Your task to perform on an android device: Open display settings Image 0: 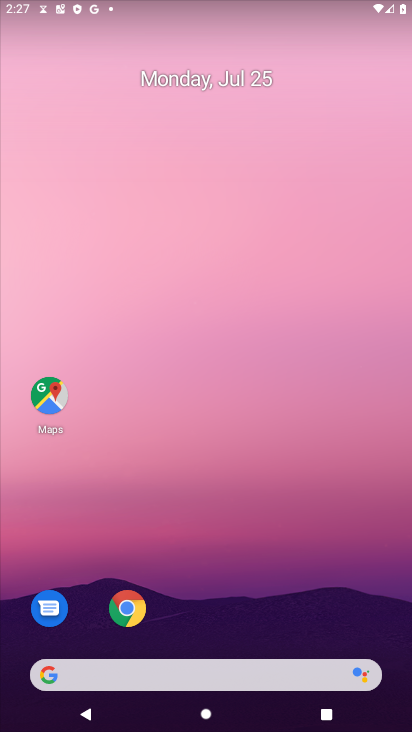
Step 0: drag from (189, 681) to (328, 237)
Your task to perform on an android device: Open display settings Image 1: 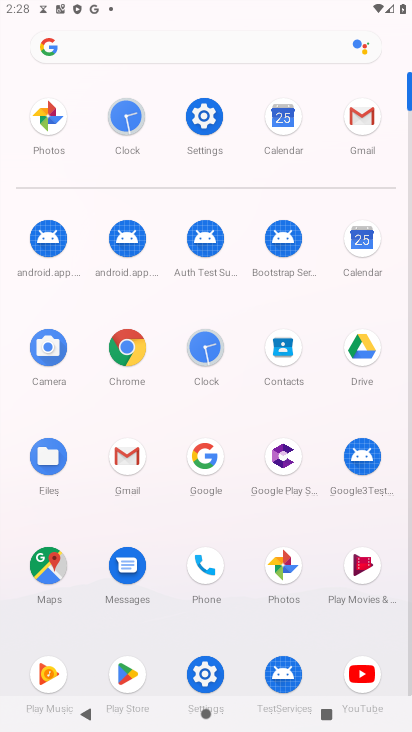
Step 1: click (204, 672)
Your task to perform on an android device: Open display settings Image 2: 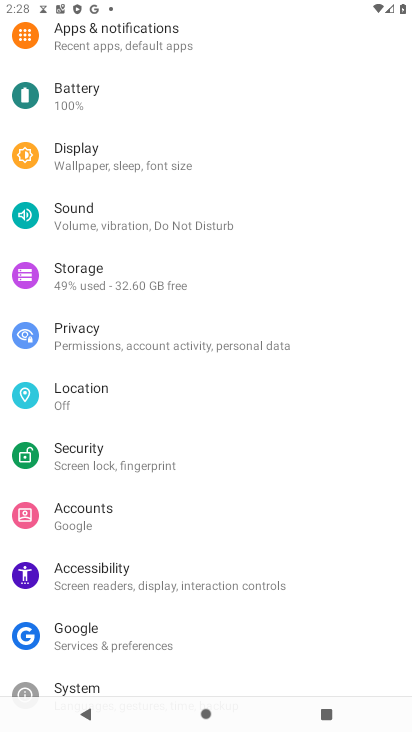
Step 2: click (76, 163)
Your task to perform on an android device: Open display settings Image 3: 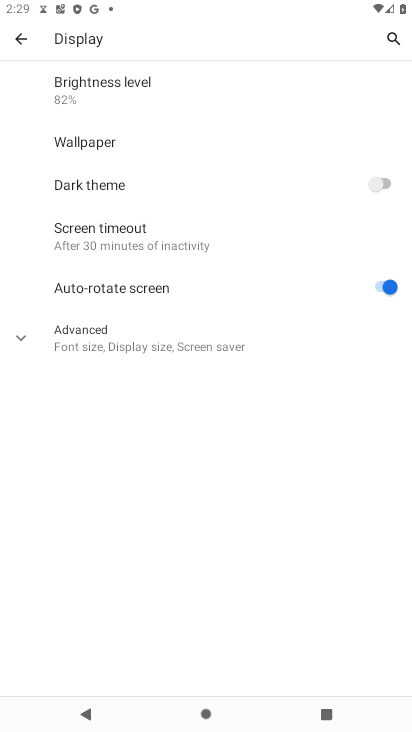
Step 3: task complete